Your task to perform on an android device: open sync settings in chrome Image 0: 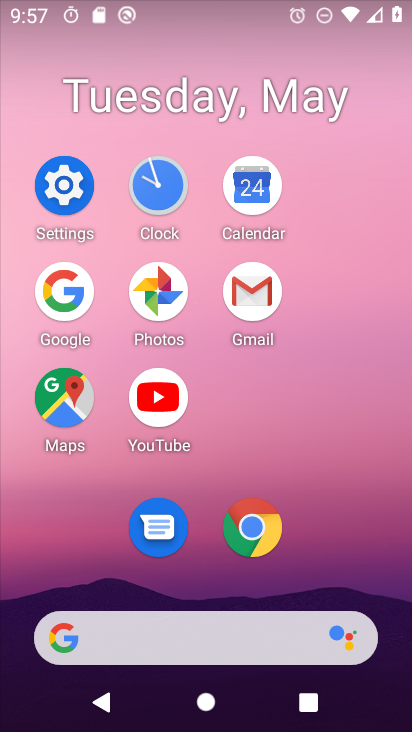
Step 0: click (245, 521)
Your task to perform on an android device: open sync settings in chrome Image 1: 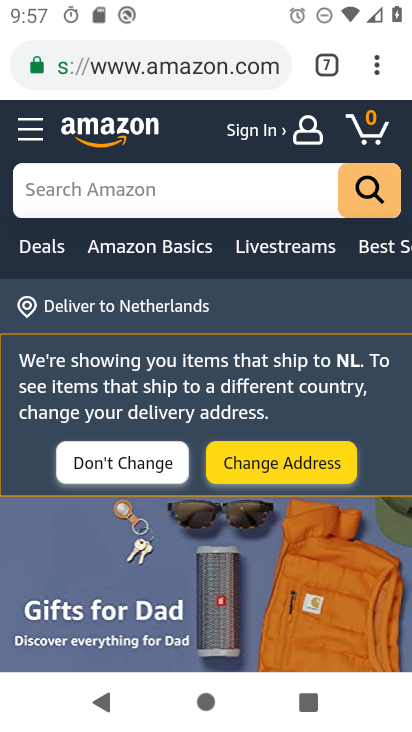
Step 1: click (394, 55)
Your task to perform on an android device: open sync settings in chrome Image 2: 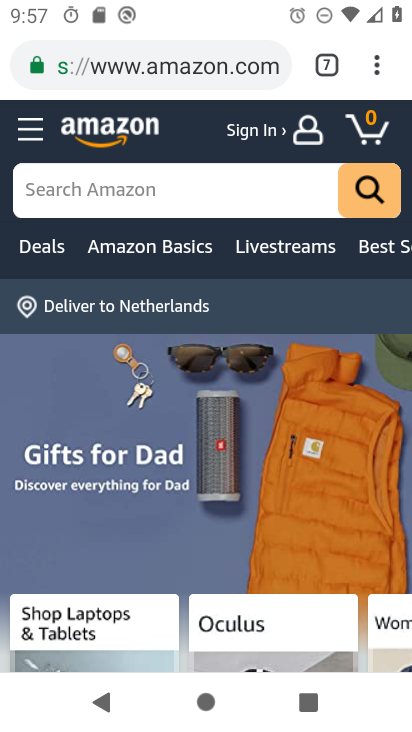
Step 2: click (389, 65)
Your task to perform on an android device: open sync settings in chrome Image 3: 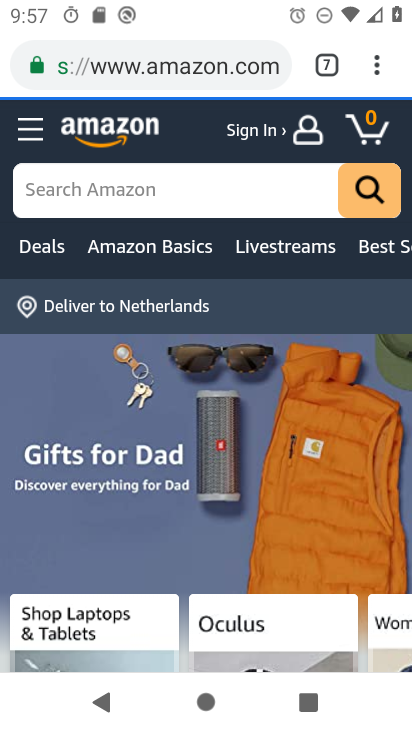
Step 3: click (385, 67)
Your task to perform on an android device: open sync settings in chrome Image 4: 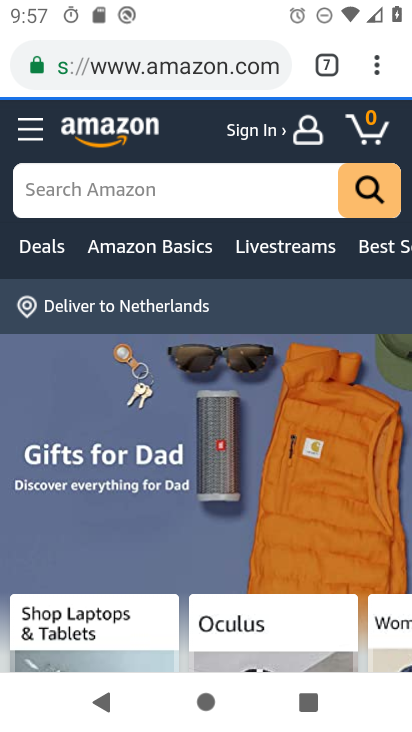
Step 4: click (371, 67)
Your task to perform on an android device: open sync settings in chrome Image 5: 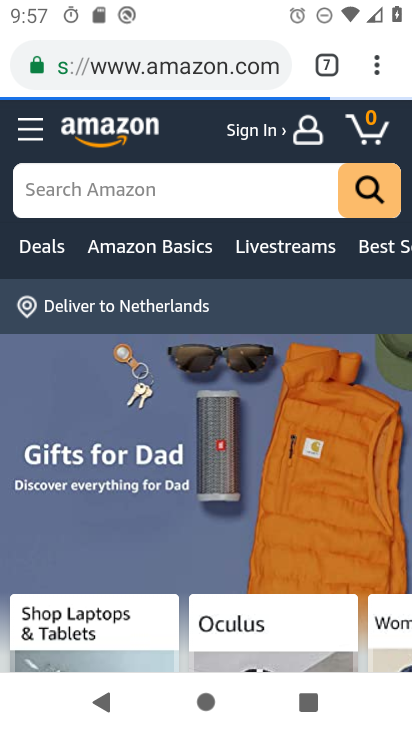
Step 5: click (375, 55)
Your task to perform on an android device: open sync settings in chrome Image 6: 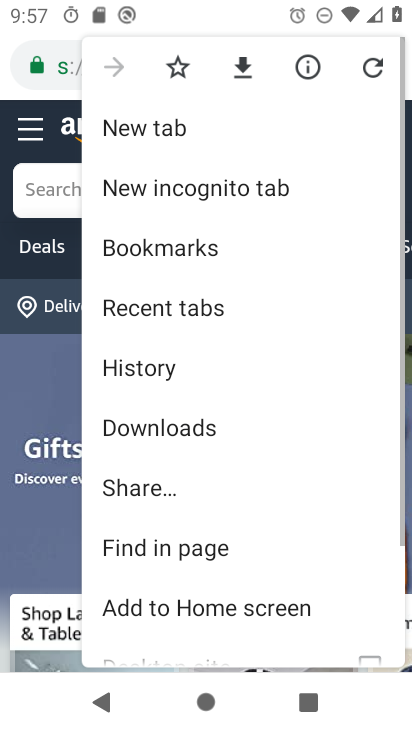
Step 6: drag from (248, 517) to (271, 133)
Your task to perform on an android device: open sync settings in chrome Image 7: 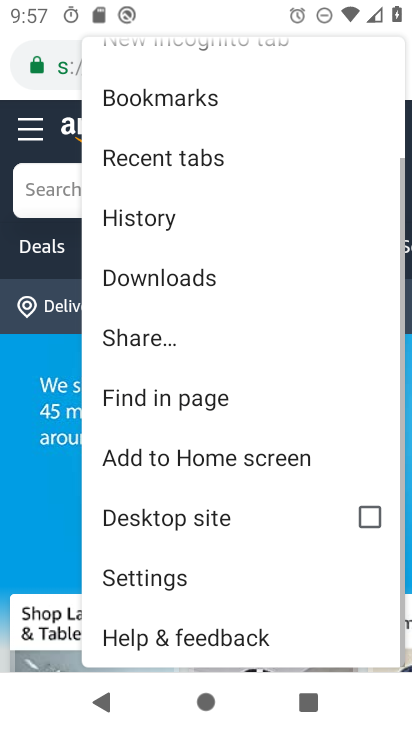
Step 7: click (201, 558)
Your task to perform on an android device: open sync settings in chrome Image 8: 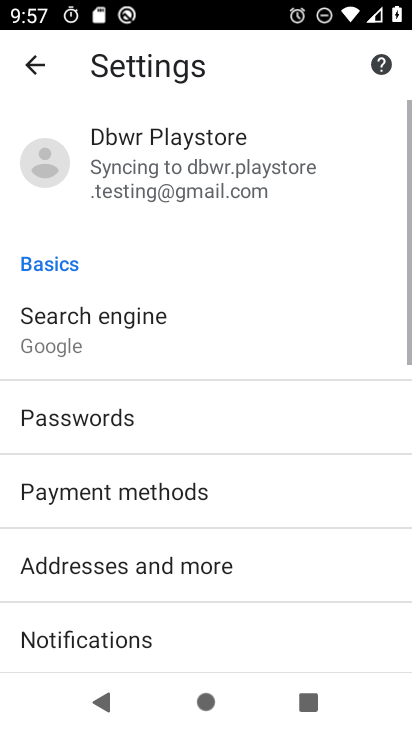
Step 8: drag from (209, 470) to (247, 226)
Your task to perform on an android device: open sync settings in chrome Image 9: 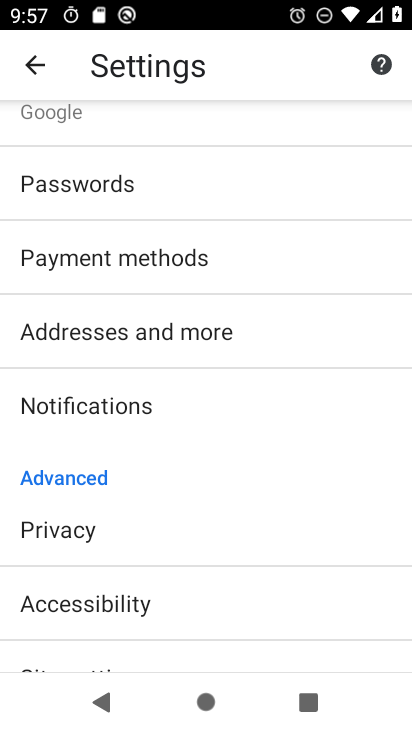
Step 9: drag from (177, 539) to (203, 161)
Your task to perform on an android device: open sync settings in chrome Image 10: 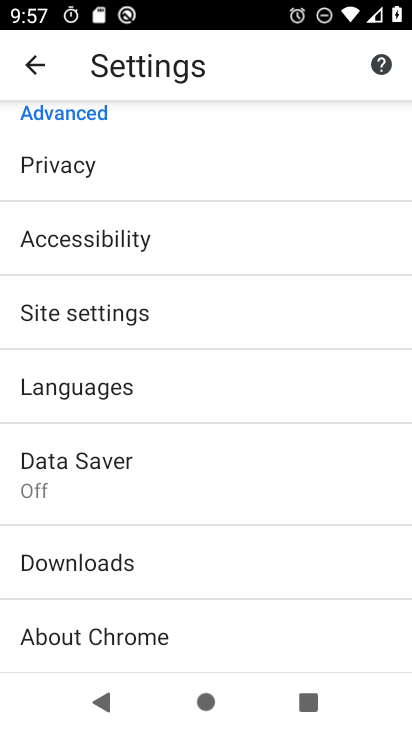
Step 10: drag from (205, 562) to (262, 245)
Your task to perform on an android device: open sync settings in chrome Image 11: 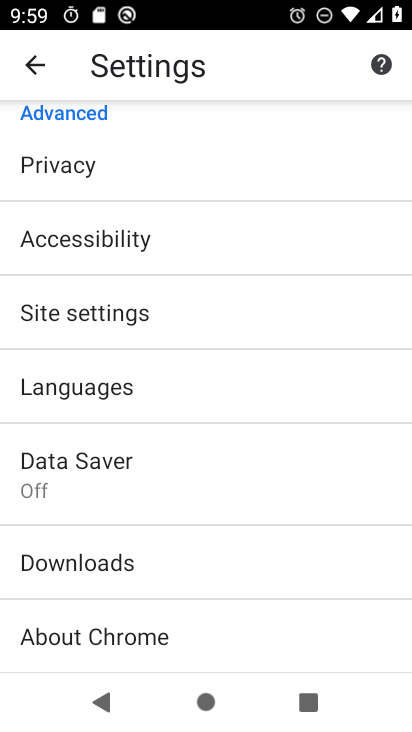
Step 11: drag from (173, 537) to (206, 186)
Your task to perform on an android device: open sync settings in chrome Image 12: 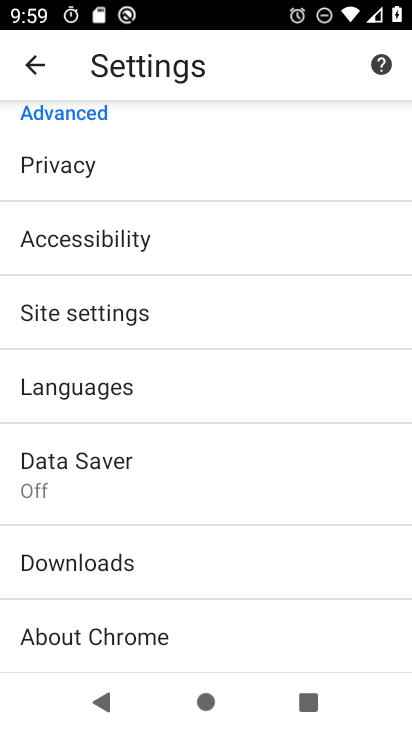
Step 12: drag from (161, 555) to (236, 111)
Your task to perform on an android device: open sync settings in chrome Image 13: 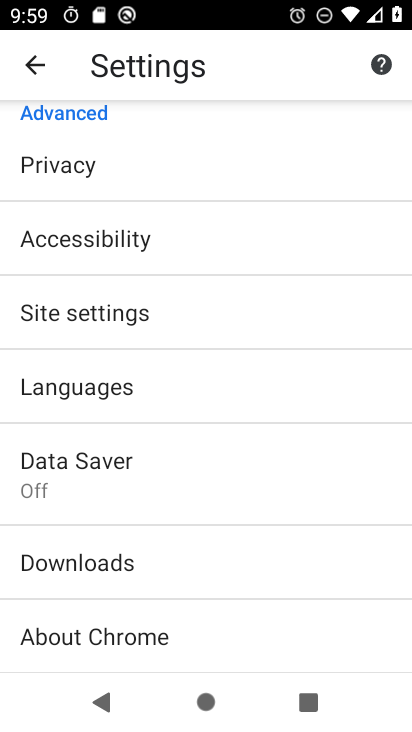
Step 13: drag from (289, 206) to (258, 476)
Your task to perform on an android device: open sync settings in chrome Image 14: 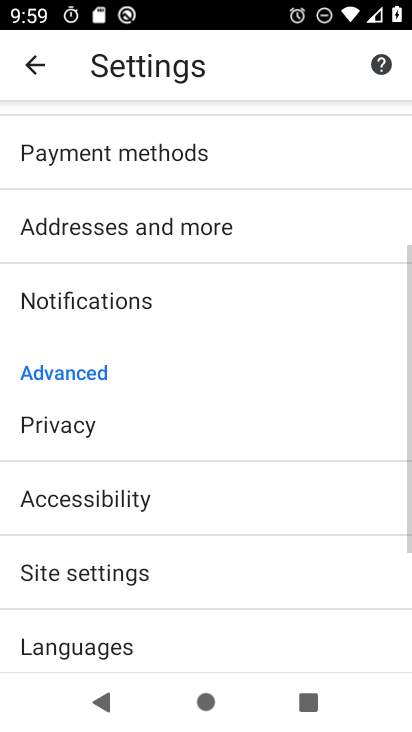
Step 14: click (164, 583)
Your task to perform on an android device: open sync settings in chrome Image 15: 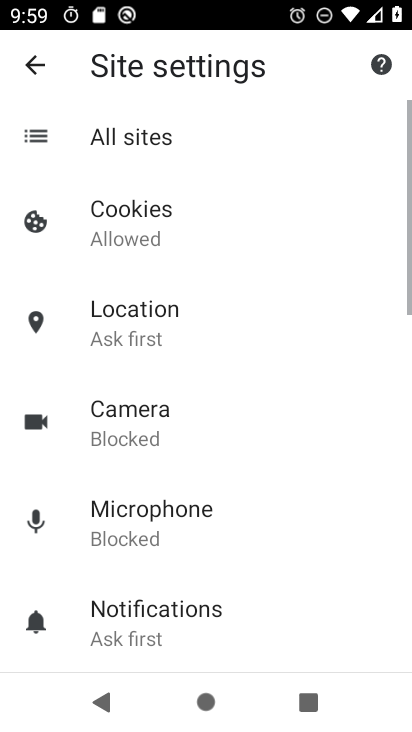
Step 15: drag from (278, 542) to (292, 128)
Your task to perform on an android device: open sync settings in chrome Image 16: 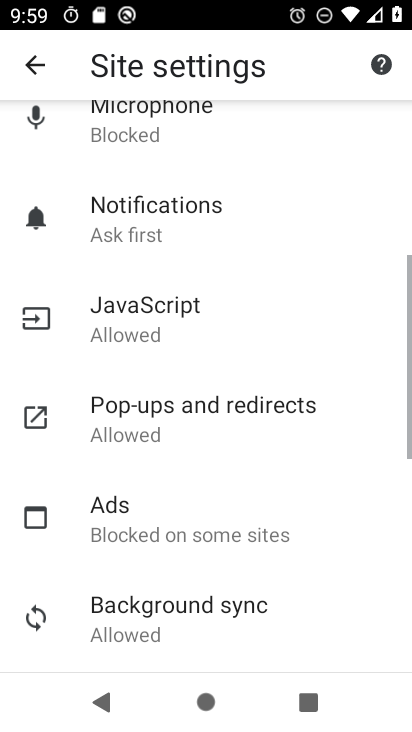
Step 16: drag from (240, 557) to (247, 179)
Your task to perform on an android device: open sync settings in chrome Image 17: 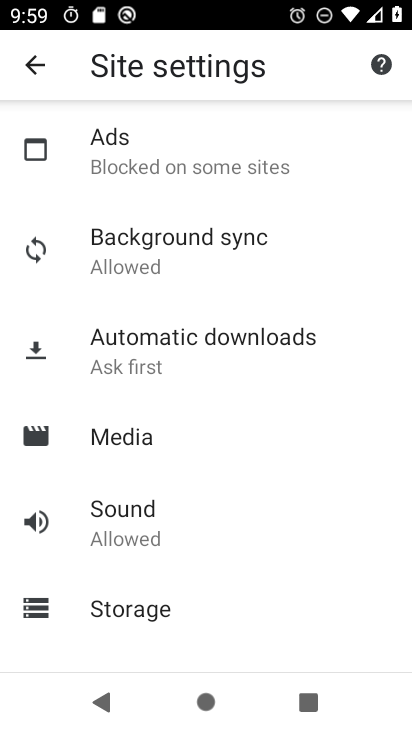
Step 17: click (178, 251)
Your task to perform on an android device: open sync settings in chrome Image 18: 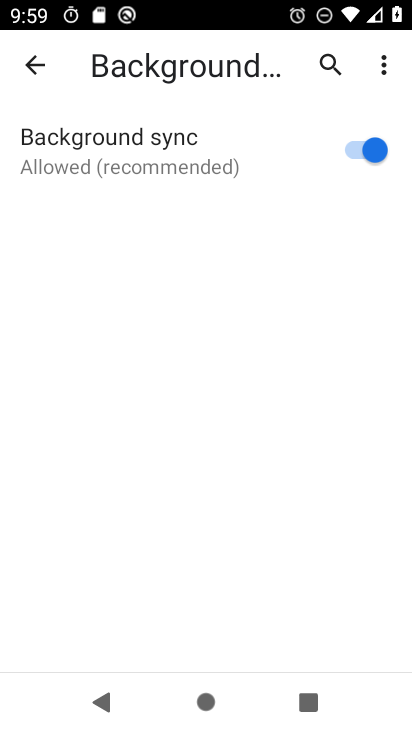
Step 18: task complete